Your task to perform on an android device: Go to sound settings Image 0: 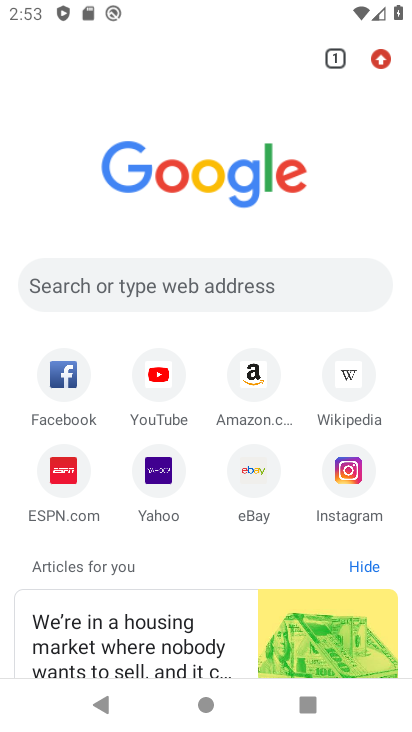
Step 0: press home button
Your task to perform on an android device: Go to sound settings Image 1: 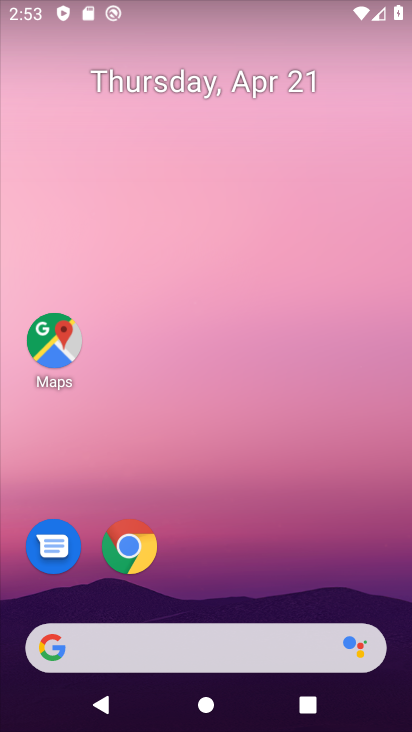
Step 1: drag from (247, 686) to (238, 209)
Your task to perform on an android device: Go to sound settings Image 2: 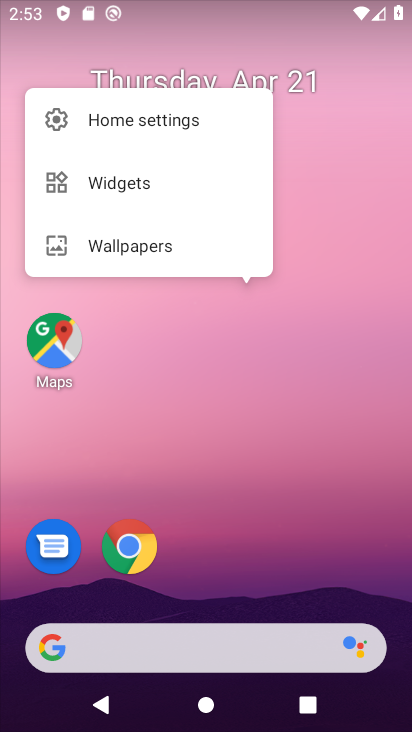
Step 2: drag from (247, 646) to (253, 43)
Your task to perform on an android device: Go to sound settings Image 3: 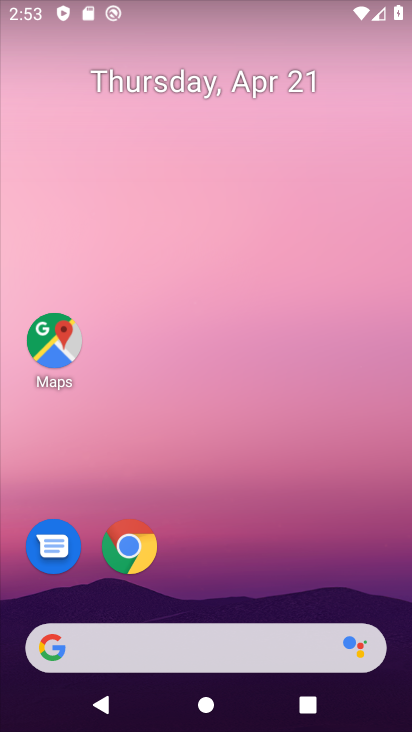
Step 3: drag from (243, 655) to (321, 45)
Your task to perform on an android device: Go to sound settings Image 4: 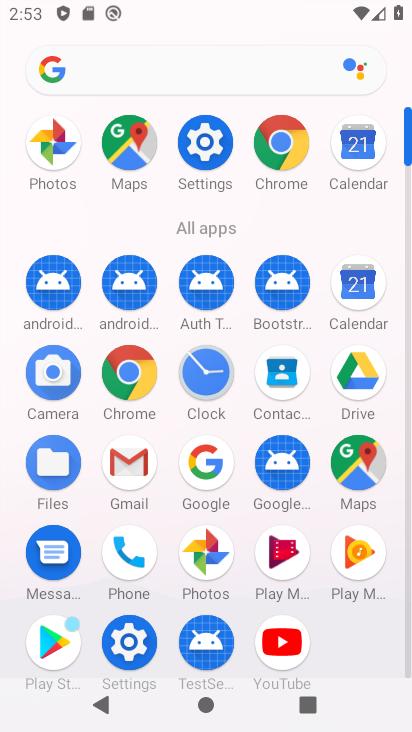
Step 4: click (141, 635)
Your task to perform on an android device: Go to sound settings Image 5: 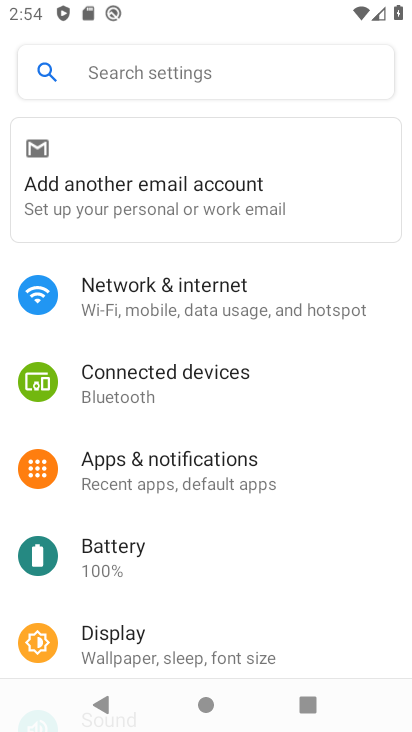
Step 5: drag from (164, 613) to (238, 307)
Your task to perform on an android device: Go to sound settings Image 6: 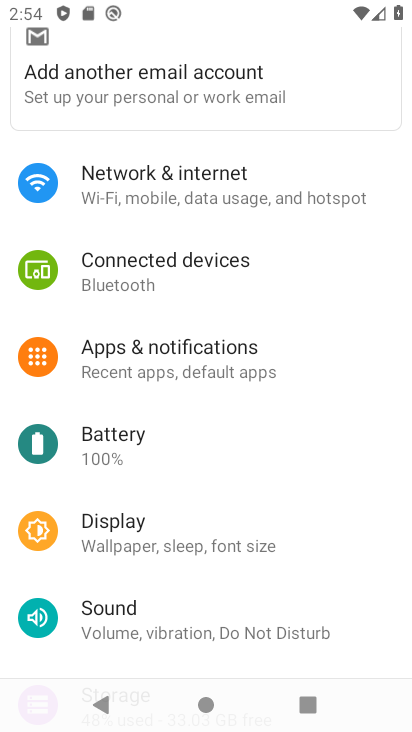
Step 6: click (211, 627)
Your task to perform on an android device: Go to sound settings Image 7: 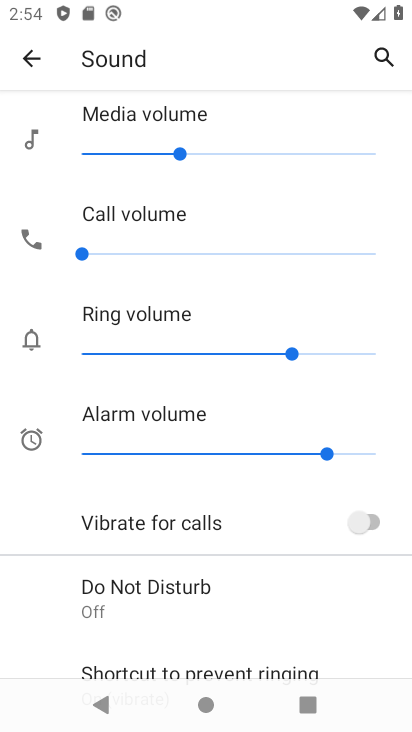
Step 7: task complete